Your task to perform on an android device: Show me productivity apps on the Play Store Image 0: 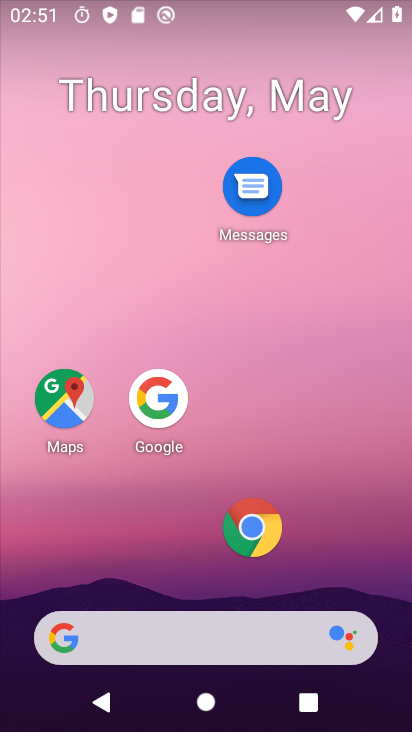
Step 0: click (278, 99)
Your task to perform on an android device: Show me productivity apps on the Play Store Image 1: 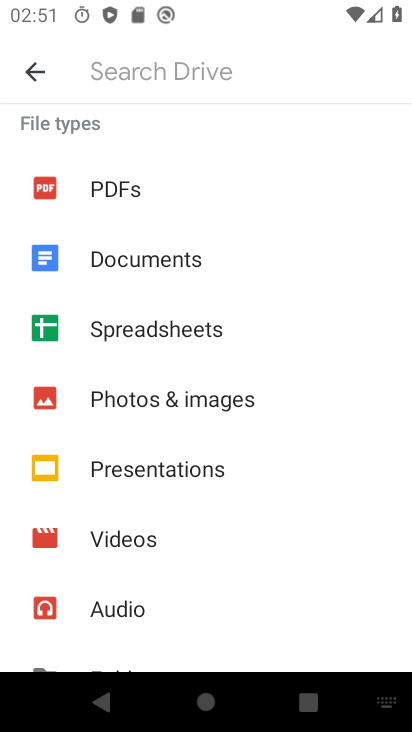
Step 1: press home button
Your task to perform on an android device: Show me productivity apps on the Play Store Image 2: 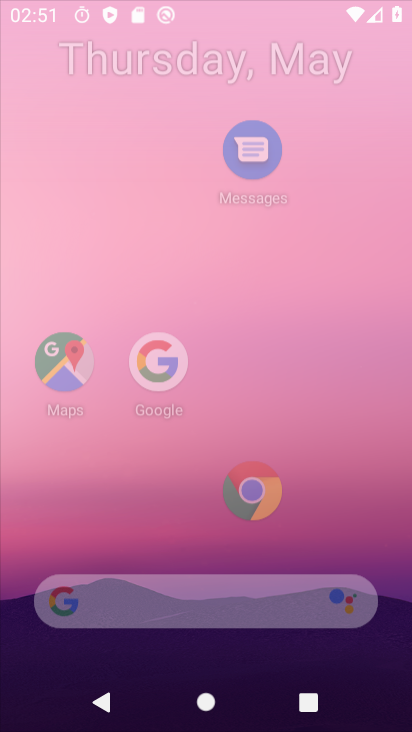
Step 2: drag from (167, 525) to (174, 163)
Your task to perform on an android device: Show me productivity apps on the Play Store Image 3: 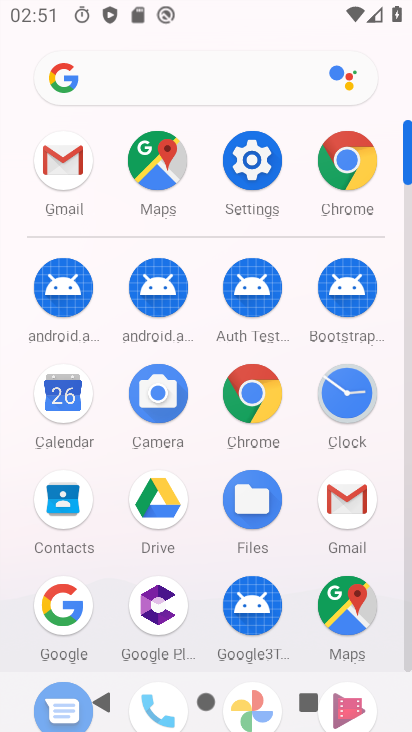
Step 3: drag from (205, 603) to (185, 208)
Your task to perform on an android device: Show me productivity apps on the Play Store Image 4: 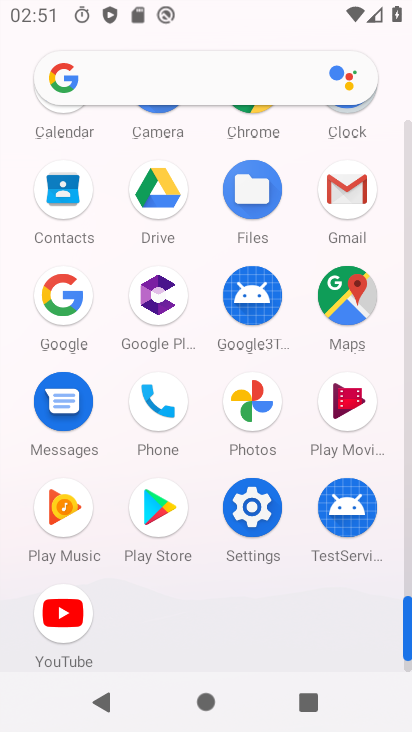
Step 4: click (159, 502)
Your task to perform on an android device: Show me productivity apps on the Play Store Image 5: 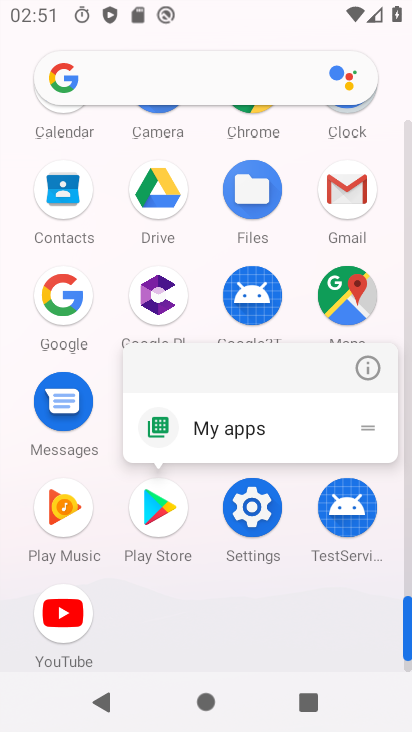
Step 5: click (362, 362)
Your task to perform on an android device: Show me productivity apps on the Play Store Image 6: 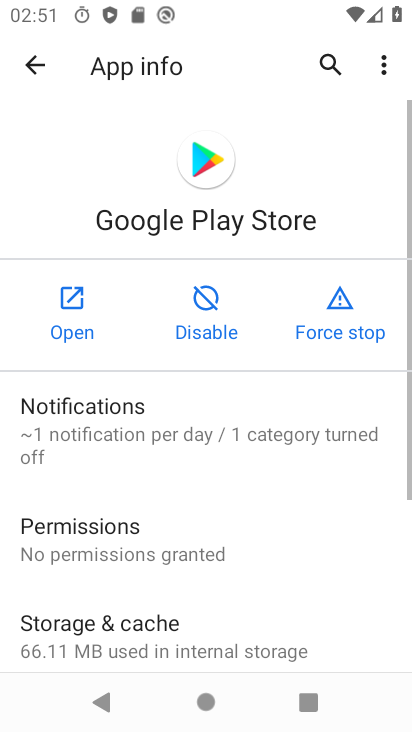
Step 6: click (70, 320)
Your task to perform on an android device: Show me productivity apps on the Play Store Image 7: 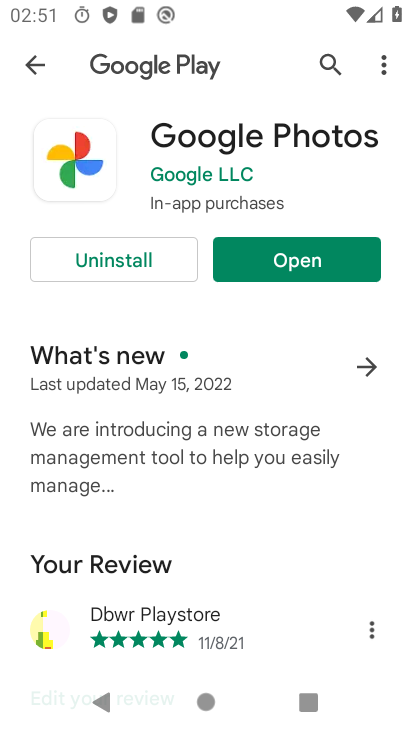
Step 7: press back button
Your task to perform on an android device: Show me productivity apps on the Play Store Image 8: 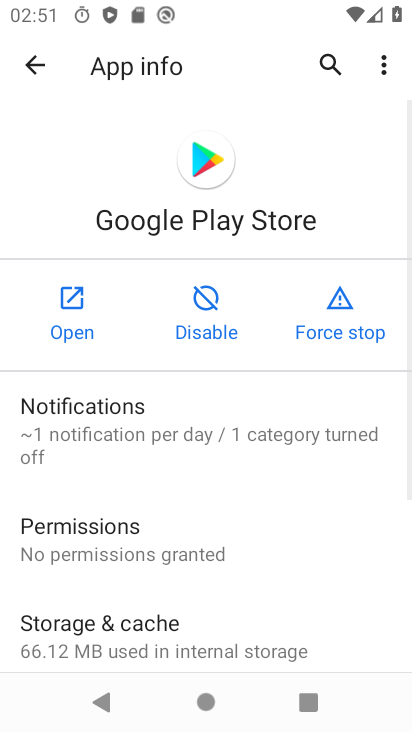
Step 8: click (72, 308)
Your task to perform on an android device: Show me productivity apps on the Play Store Image 9: 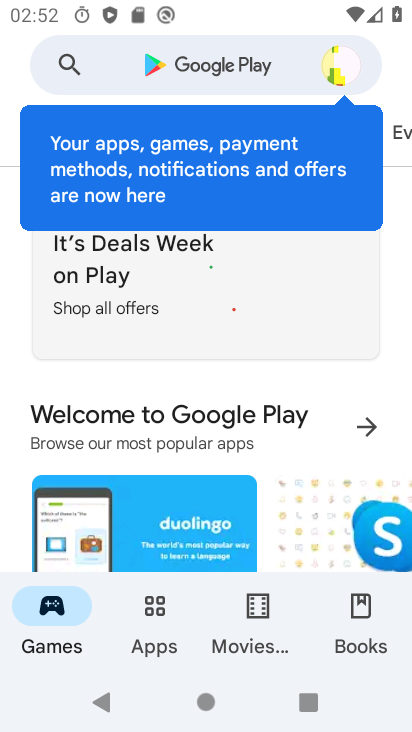
Step 9: click (164, 632)
Your task to perform on an android device: Show me productivity apps on the Play Store Image 10: 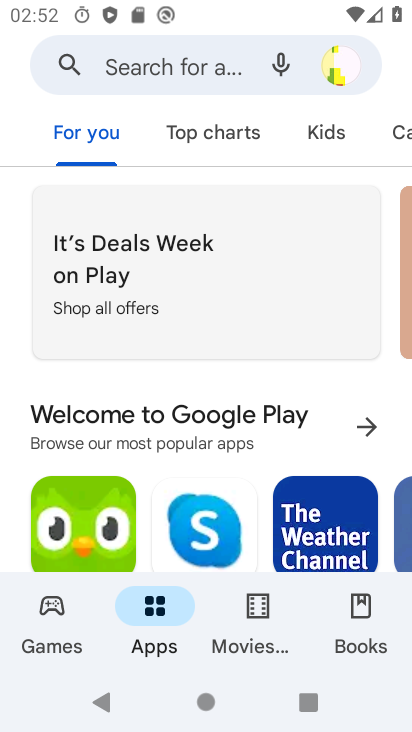
Step 10: task complete